Your task to perform on an android device: change notifications settings Image 0: 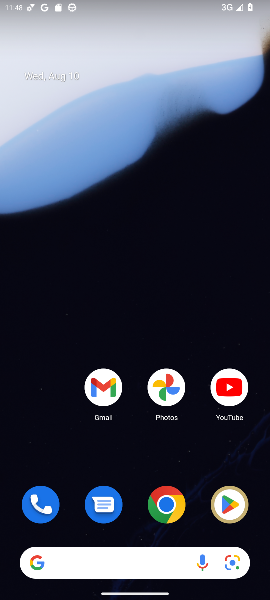
Step 0: press home button
Your task to perform on an android device: change notifications settings Image 1: 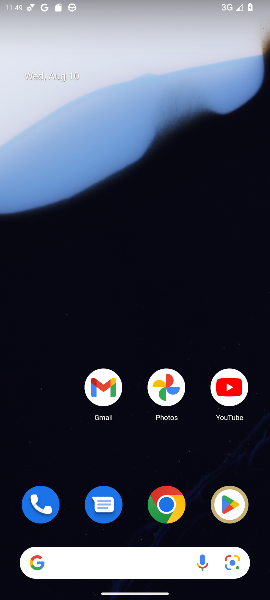
Step 1: drag from (71, 525) to (128, 42)
Your task to perform on an android device: change notifications settings Image 2: 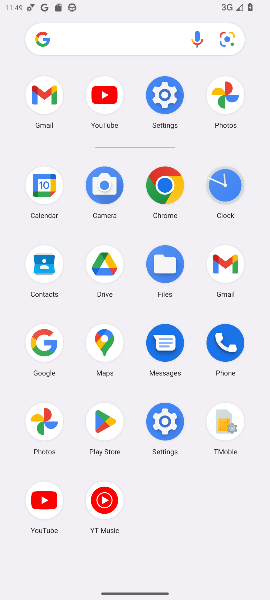
Step 2: click (163, 102)
Your task to perform on an android device: change notifications settings Image 3: 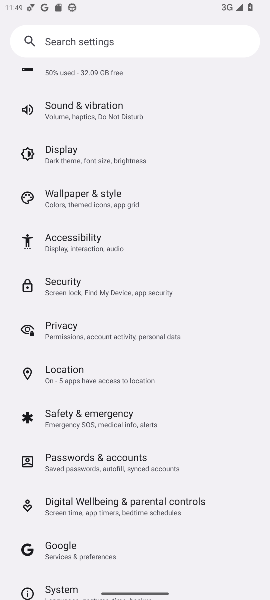
Step 3: drag from (165, 277) to (171, 73)
Your task to perform on an android device: change notifications settings Image 4: 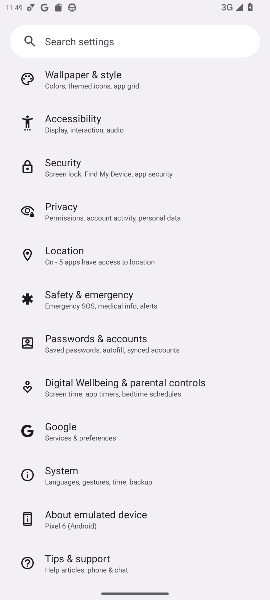
Step 4: drag from (169, 124) to (190, 535)
Your task to perform on an android device: change notifications settings Image 5: 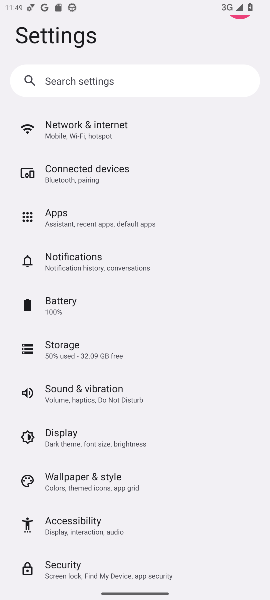
Step 5: click (70, 262)
Your task to perform on an android device: change notifications settings Image 6: 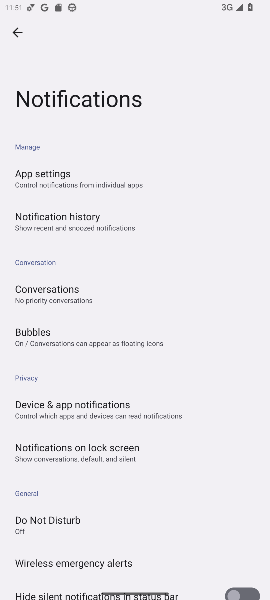
Step 6: click (75, 451)
Your task to perform on an android device: change notifications settings Image 7: 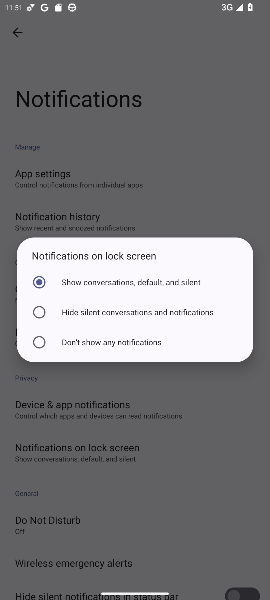
Step 7: click (38, 343)
Your task to perform on an android device: change notifications settings Image 8: 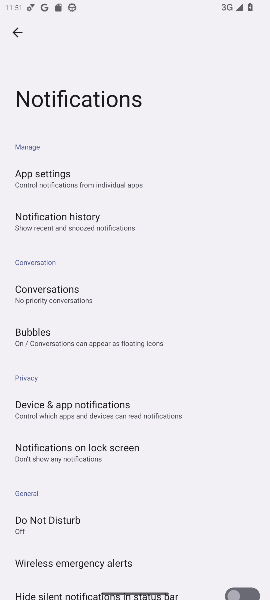
Step 8: task complete